Your task to perform on an android device: toggle wifi Image 0: 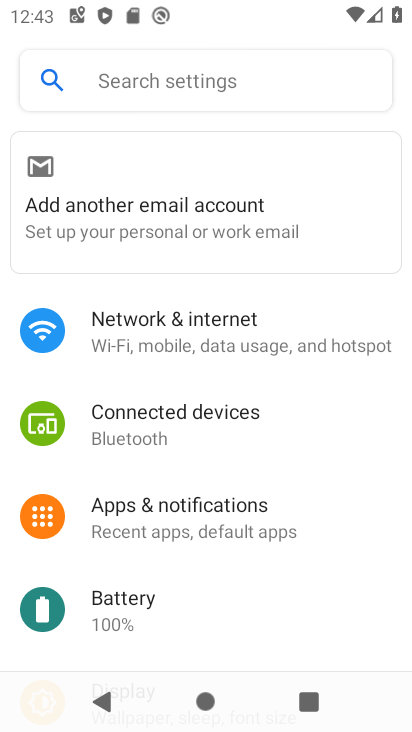
Step 0: click (316, 345)
Your task to perform on an android device: toggle wifi Image 1: 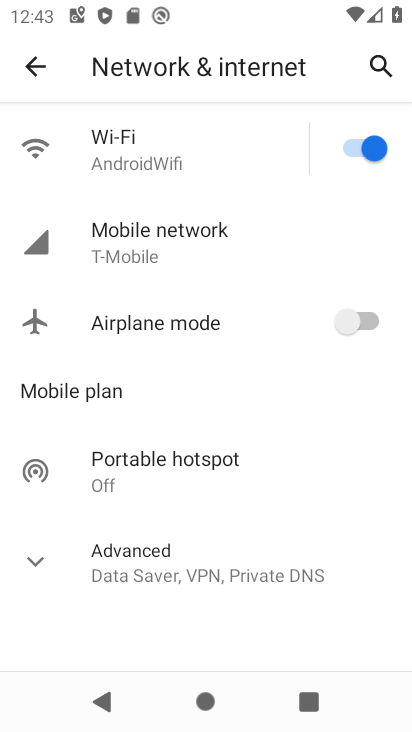
Step 1: click (362, 134)
Your task to perform on an android device: toggle wifi Image 2: 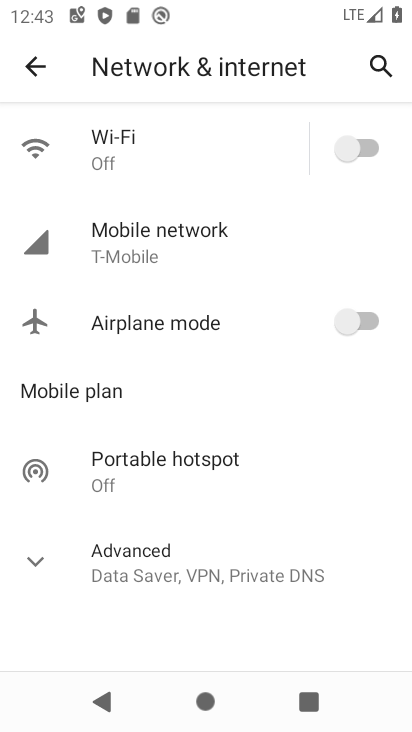
Step 2: task complete